Your task to perform on an android device: Open display settings Image 0: 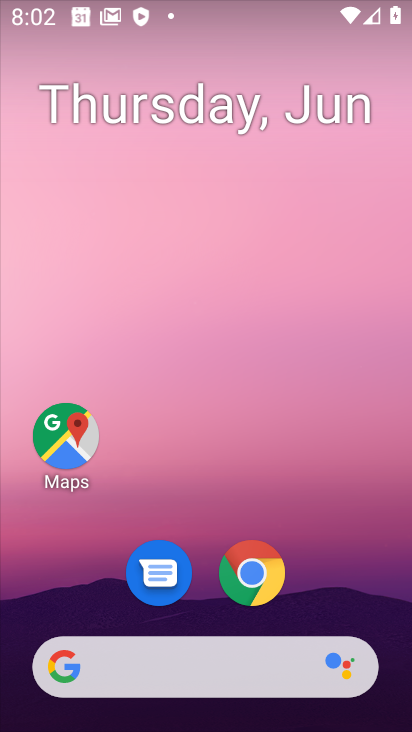
Step 0: drag from (287, 571) to (211, 114)
Your task to perform on an android device: Open display settings Image 1: 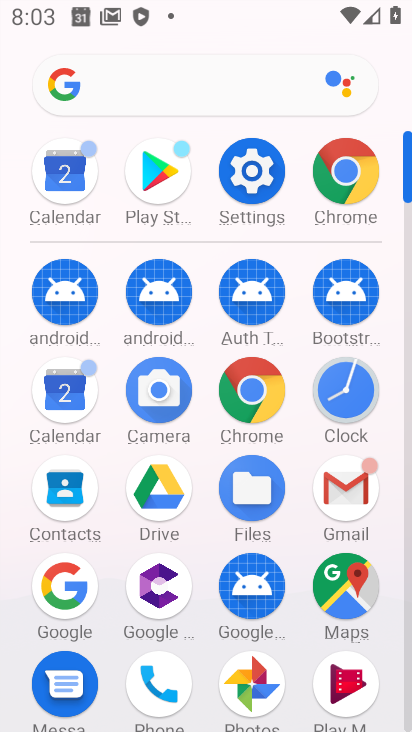
Step 1: click (268, 171)
Your task to perform on an android device: Open display settings Image 2: 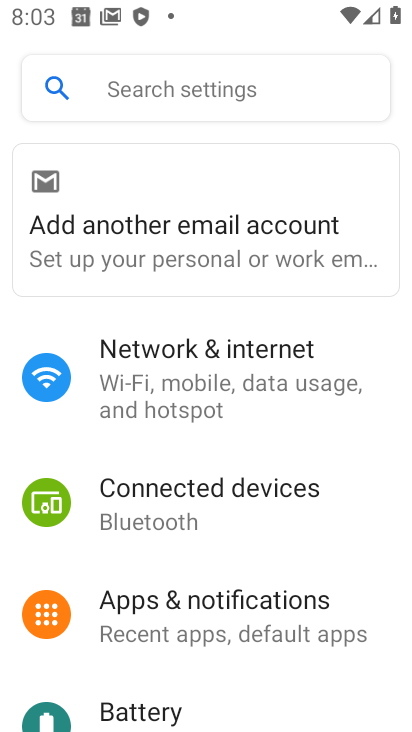
Step 2: drag from (207, 601) to (229, 319)
Your task to perform on an android device: Open display settings Image 3: 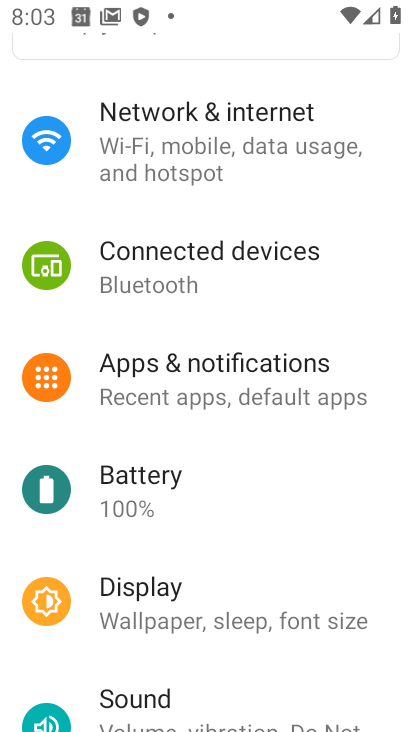
Step 3: click (186, 623)
Your task to perform on an android device: Open display settings Image 4: 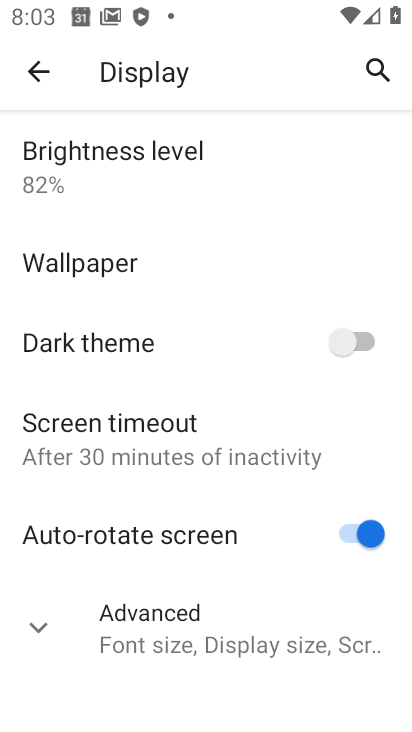
Step 4: task complete